Your task to perform on an android device: toggle wifi Image 0: 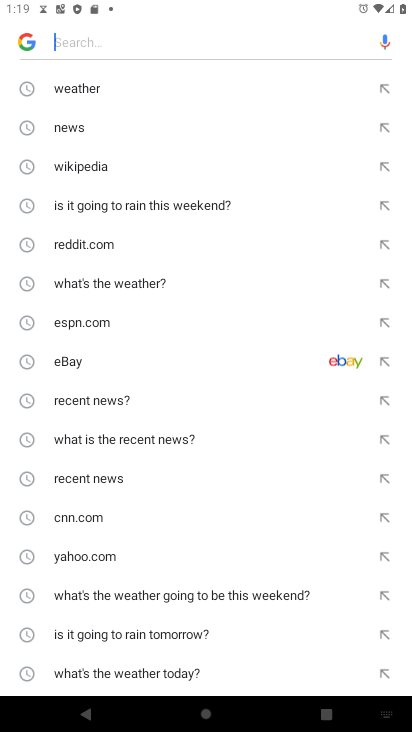
Step 0: press home button
Your task to perform on an android device: toggle wifi Image 1: 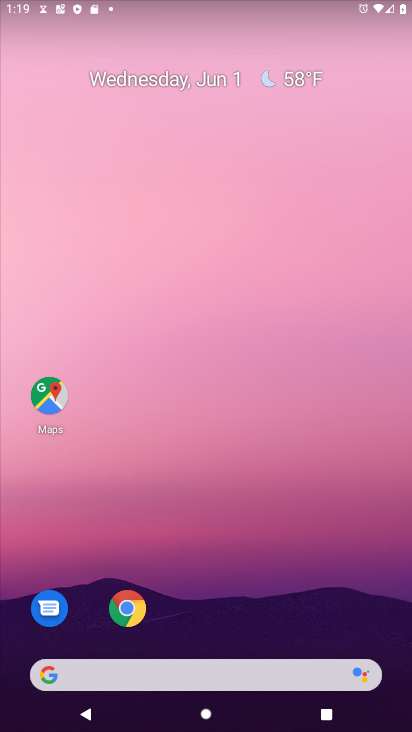
Step 1: drag from (209, 13) to (136, 675)
Your task to perform on an android device: toggle wifi Image 2: 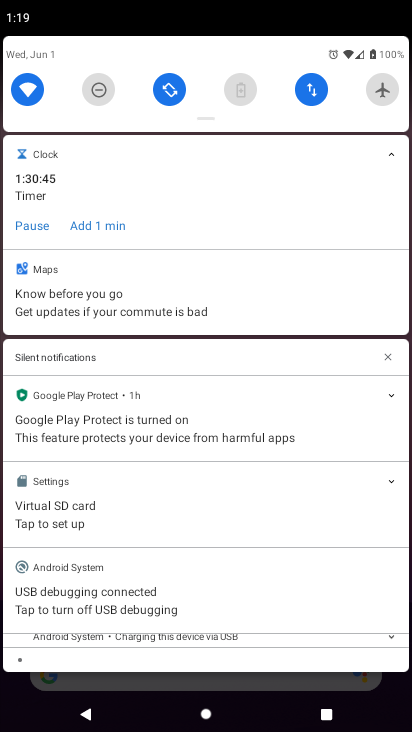
Step 2: click (33, 90)
Your task to perform on an android device: toggle wifi Image 3: 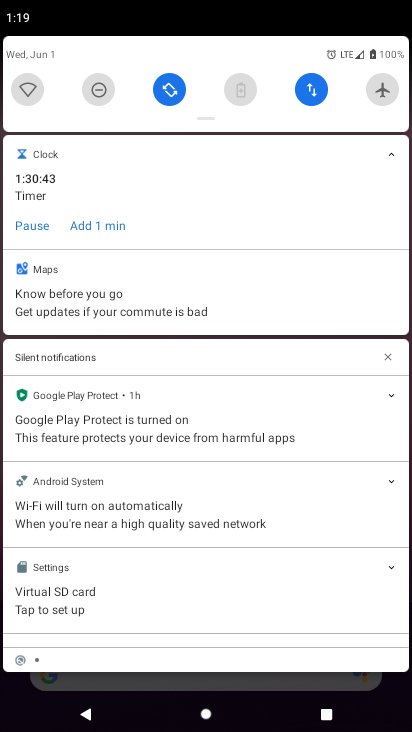
Step 3: task complete